Your task to perform on an android device: Toggle the flashlight Image 0: 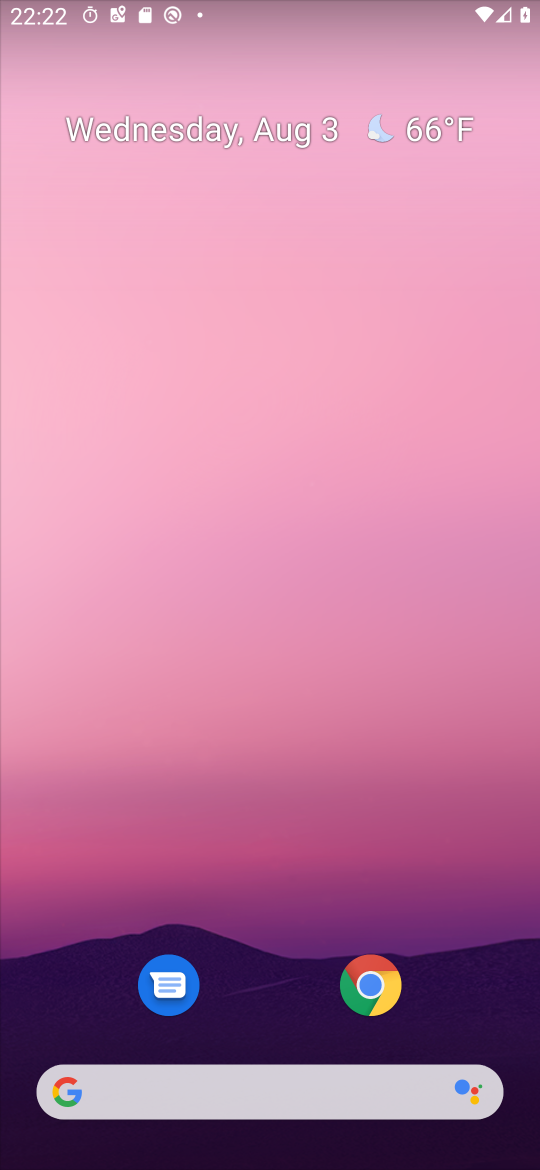
Step 0: drag from (247, 819) to (277, 293)
Your task to perform on an android device: Toggle the flashlight Image 1: 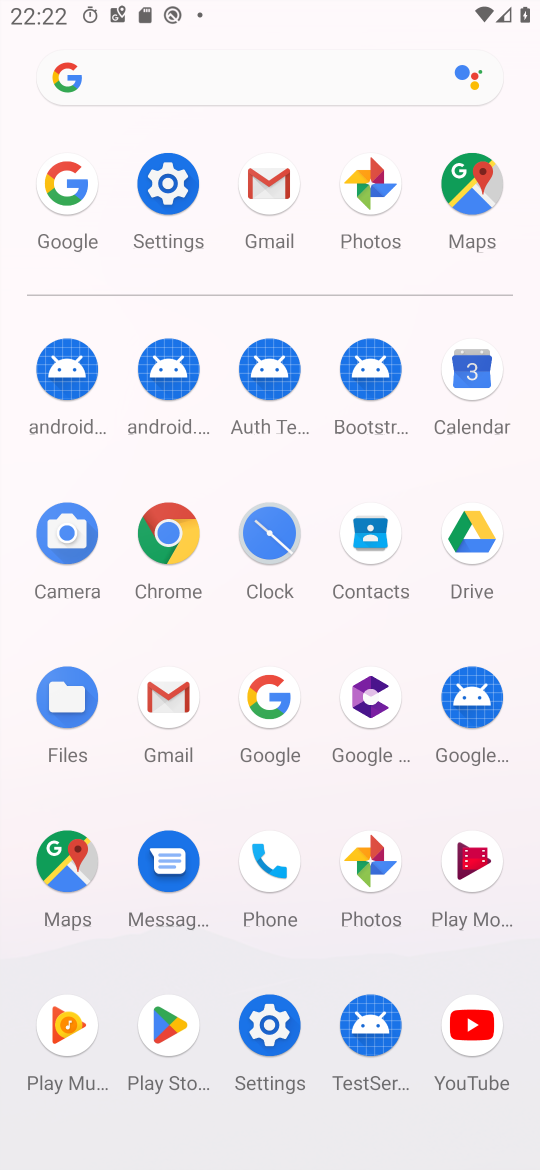
Step 1: click (190, 169)
Your task to perform on an android device: Toggle the flashlight Image 2: 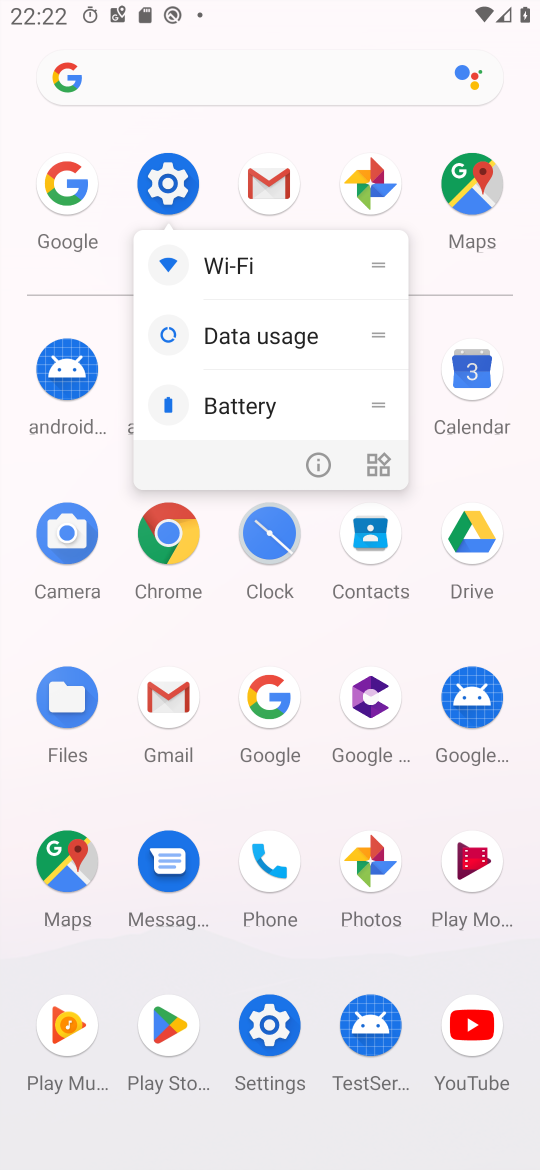
Step 2: click (188, 171)
Your task to perform on an android device: Toggle the flashlight Image 3: 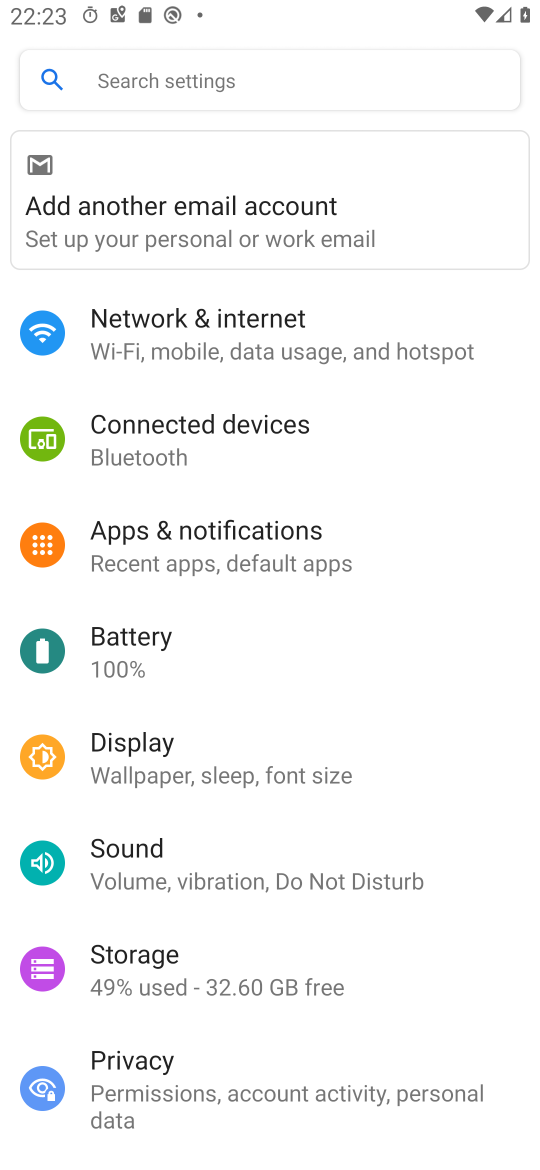
Step 3: task complete